Your task to perform on an android device: toggle pop-ups in chrome Image 0: 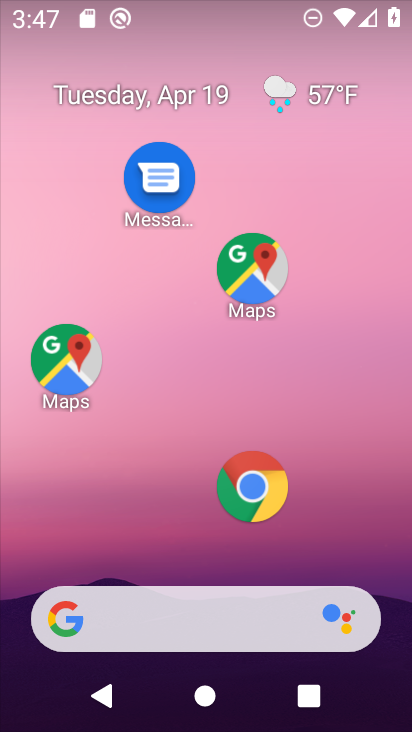
Step 0: click (256, 494)
Your task to perform on an android device: toggle pop-ups in chrome Image 1: 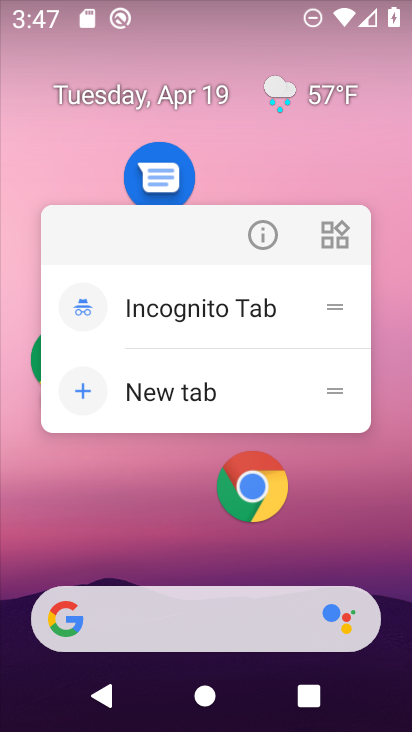
Step 1: click (267, 227)
Your task to perform on an android device: toggle pop-ups in chrome Image 2: 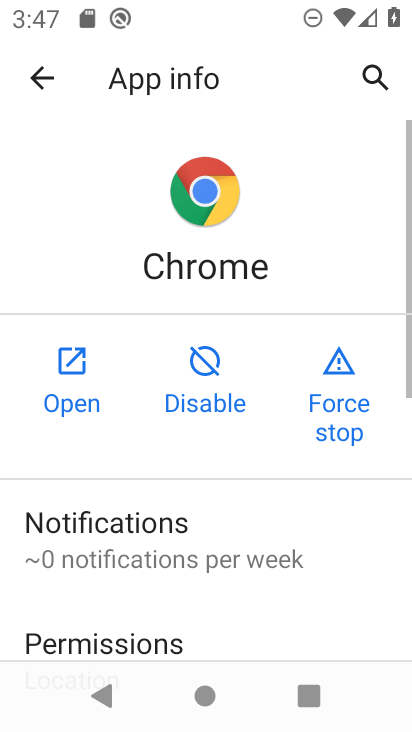
Step 2: click (372, 299)
Your task to perform on an android device: toggle pop-ups in chrome Image 3: 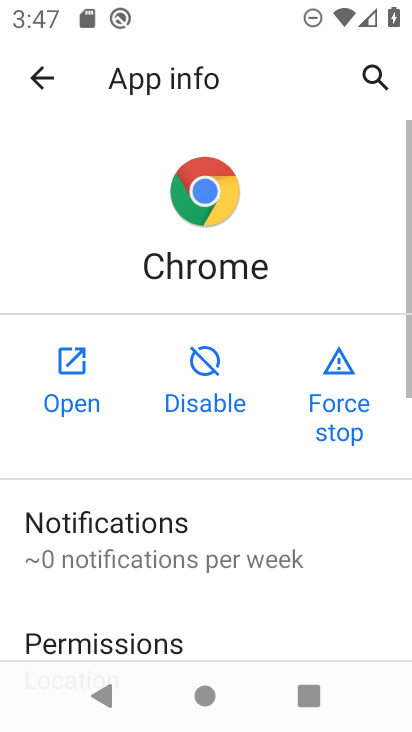
Step 3: drag from (278, 370) to (199, 346)
Your task to perform on an android device: toggle pop-ups in chrome Image 4: 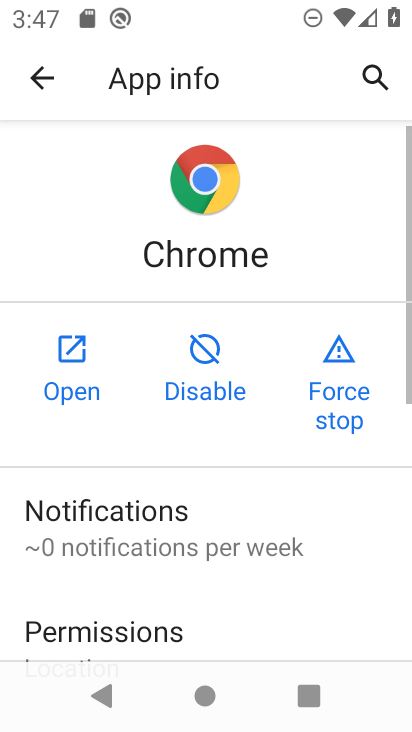
Step 4: click (140, 269)
Your task to perform on an android device: toggle pop-ups in chrome Image 5: 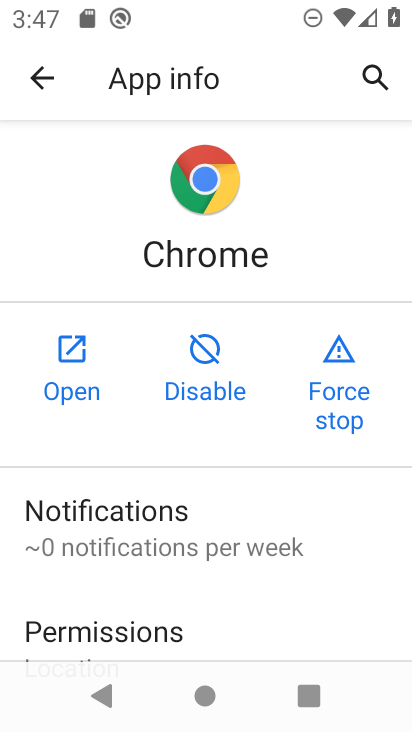
Step 5: click (353, 338)
Your task to perform on an android device: toggle pop-ups in chrome Image 6: 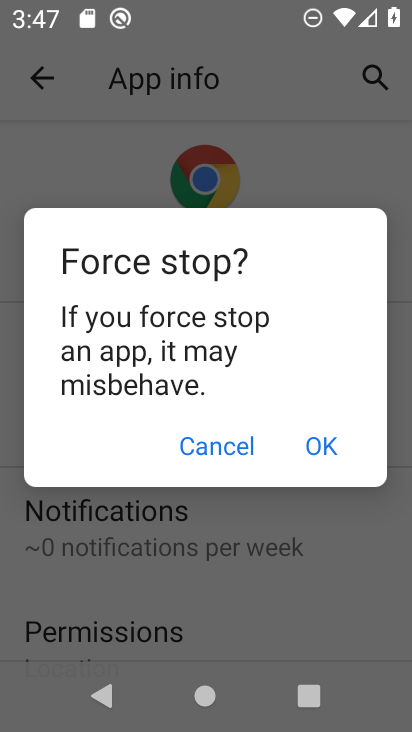
Step 6: click (247, 457)
Your task to perform on an android device: toggle pop-ups in chrome Image 7: 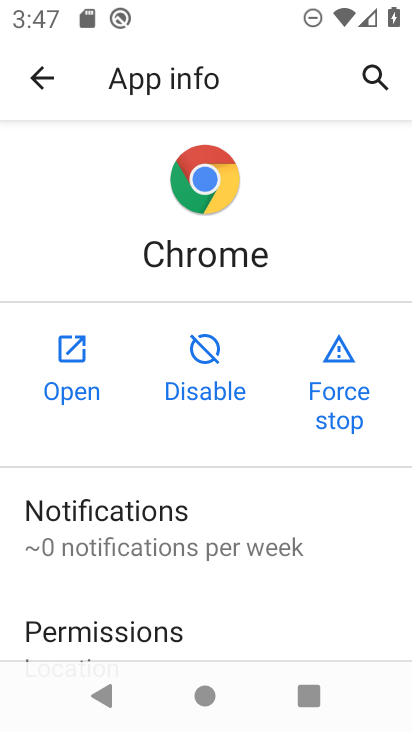
Step 7: click (96, 380)
Your task to perform on an android device: toggle pop-ups in chrome Image 8: 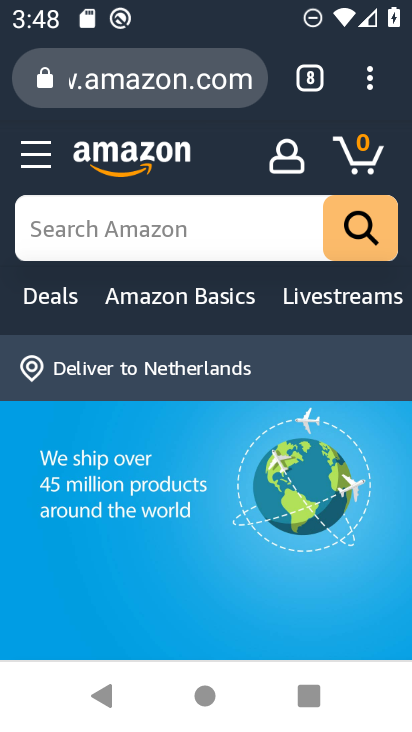
Step 8: click (391, 85)
Your task to perform on an android device: toggle pop-ups in chrome Image 9: 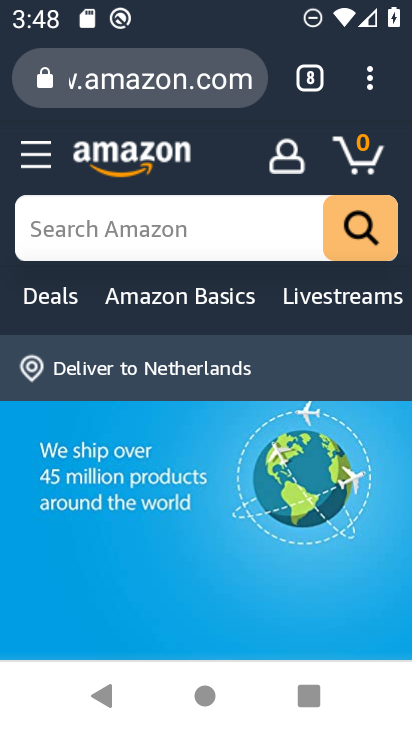
Step 9: click (367, 82)
Your task to perform on an android device: toggle pop-ups in chrome Image 10: 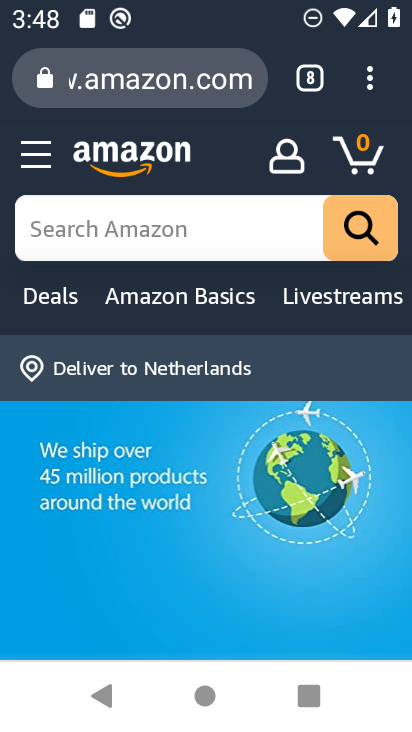
Step 10: click (379, 90)
Your task to perform on an android device: toggle pop-ups in chrome Image 11: 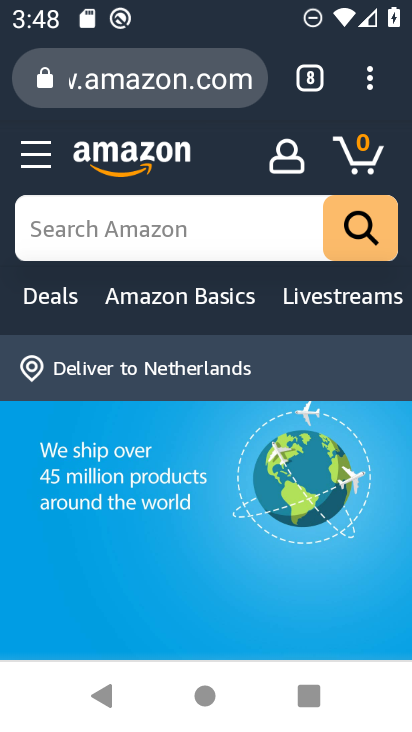
Step 11: click (373, 83)
Your task to perform on an android device: toggle pop-ups in chrome Image 12: 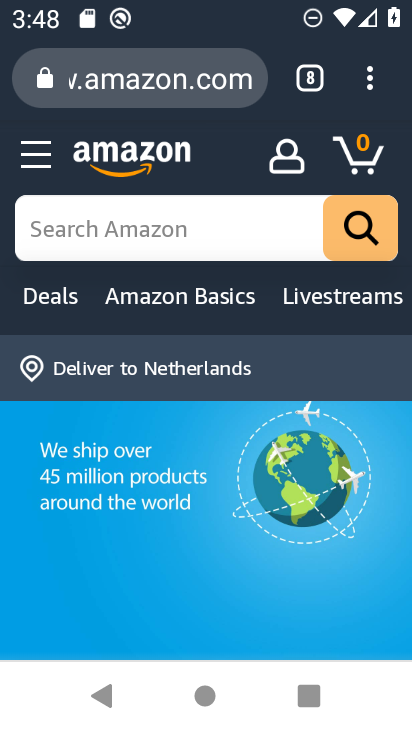
Step 12: click (378, 80)
Your task to perform on an android device: toggle pop-ups in chrome Image 13: 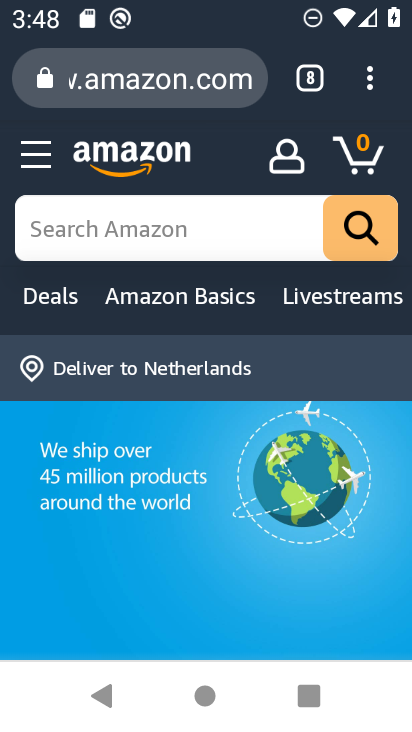
Step 13: click (368, 85)
Your task to perform on an android device: toggle pop-ups in chrome Image 14: 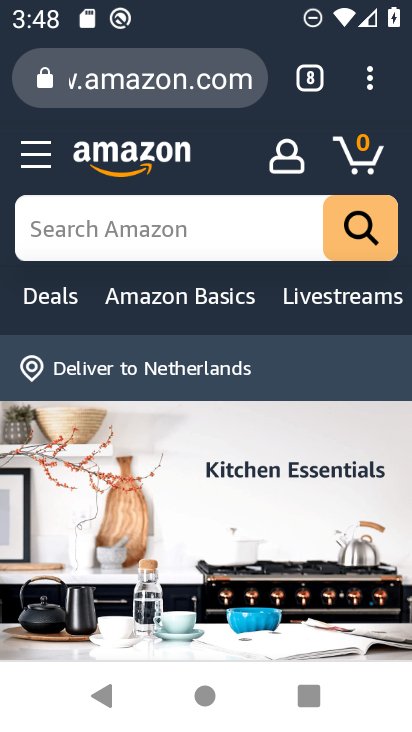
Step 14: click (376, 82)
Your task to perform on an android device: toggle pop-ups in chrome Image 15: 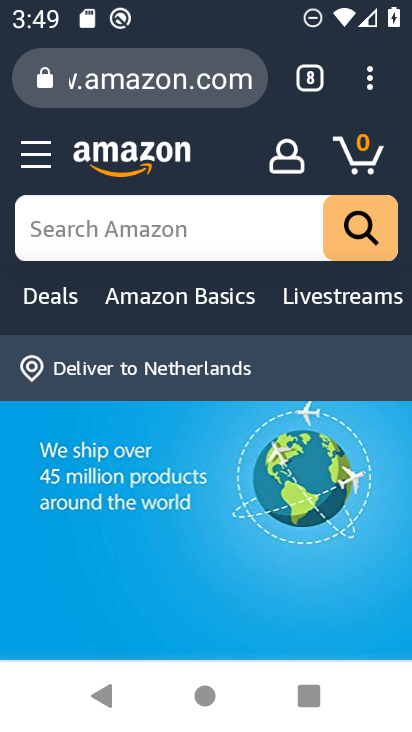
Step 15: click (373, 92)
Your task to perform on an android device: toggle pop-ups in chrome Image 16: 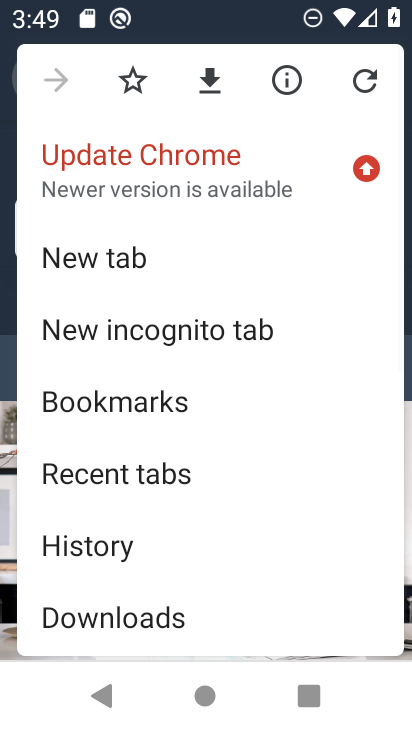
Step 16: drag from (259, 468) to (321, 180)
Your task to perform on an android device: toggle pop-ups in chrome Image 17: 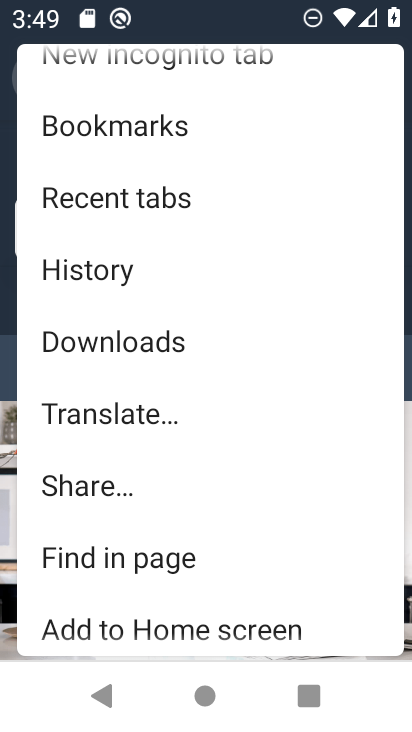
Step 17: drag from (214, 512) to (270, 277)
Your task to perform on an android device: toggle pop-ups in chrome Image 18: 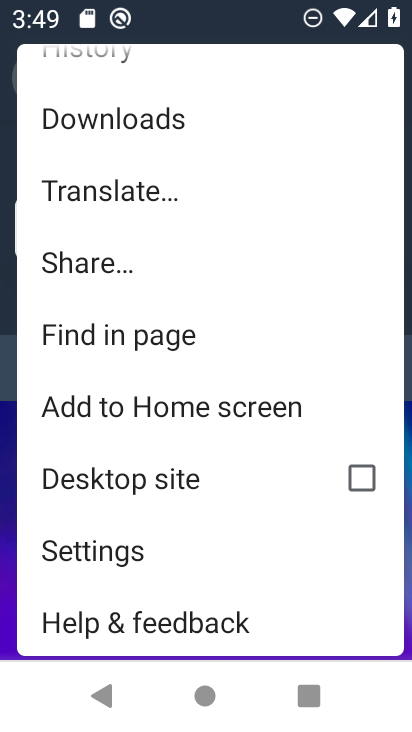
Step 18: click (179, 554)
Your task to perform on an android device: toggle pop-ups in chrome Image 19: 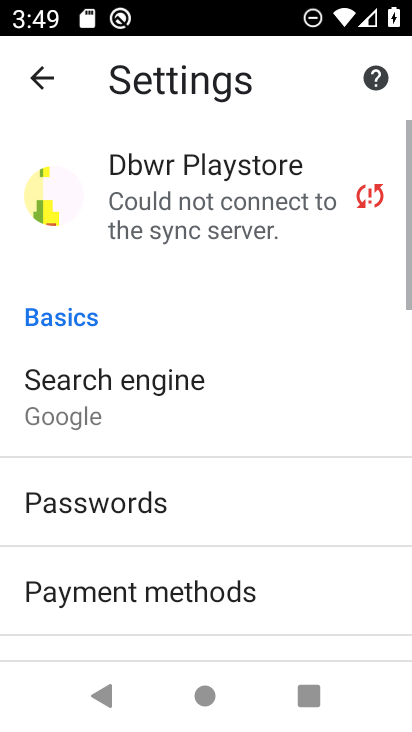
Step 19: drag from (271, 458) to (324, 244)
Your task to perform on an android device: toggle pop-ups in chrome Image 20: 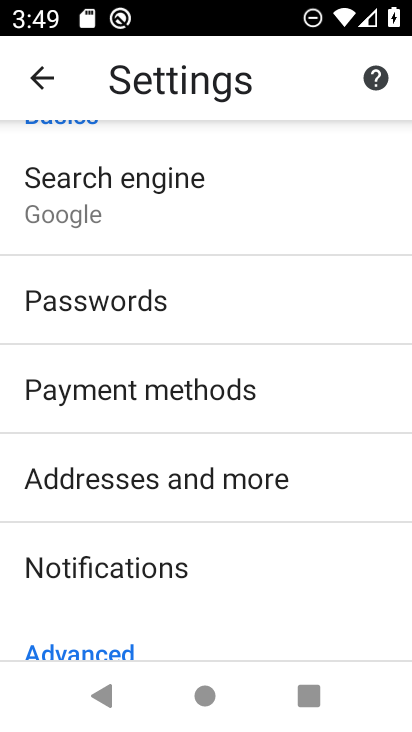
Step 20: drag from (217, 553) to (293, 277)
Your task to perform on an android device: toggle pop-ups in chrome Image 21: 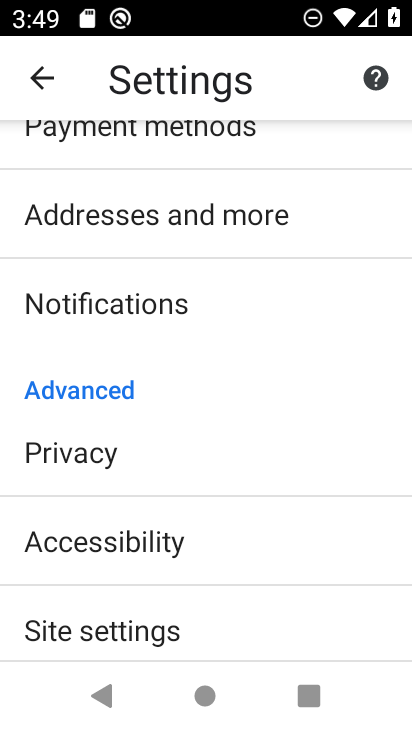
Step 21: click (168, 625)
Your task to perform on an android device: toggle pop-ups in chrome Image 22: 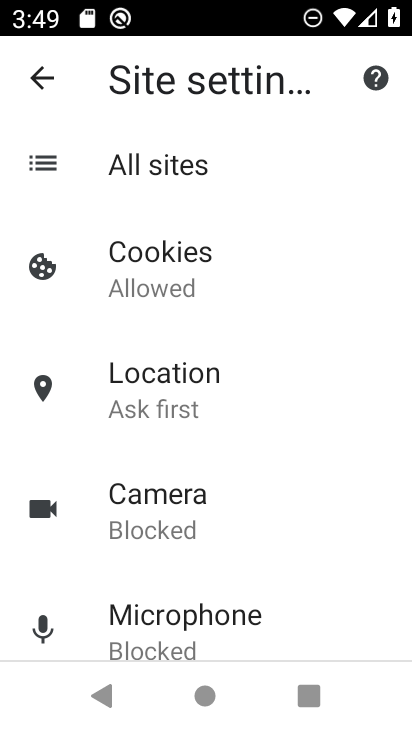
Step 22: drag from (283, 443) to (279, 132)
Your task to perform on an android device: toggle pop-ups in chrome Image 23: 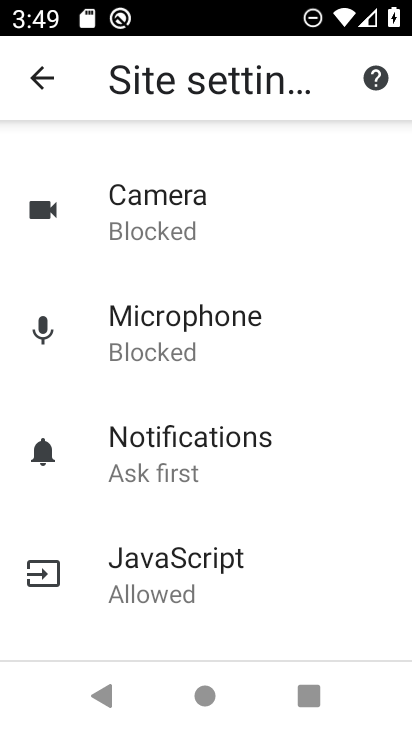
Step 23: drag from (247, 563) to (256, 247)
Your task to perform on an android device: toggle pop-ups in chrome Image 24: 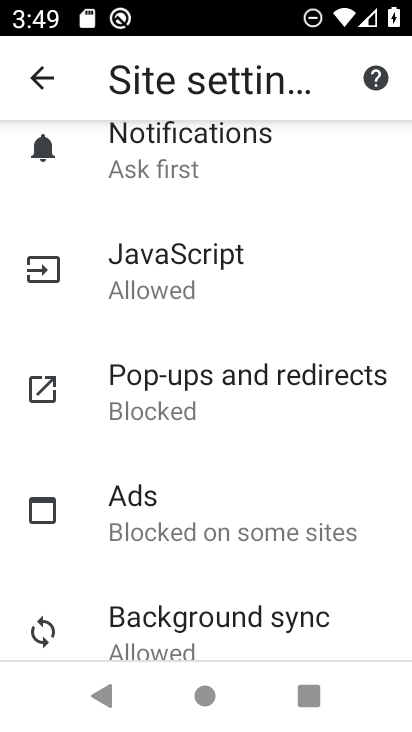
Step 24: click (235, 397)
Your task to perform on an android device: toggle pop-ups in chrome Image 25: 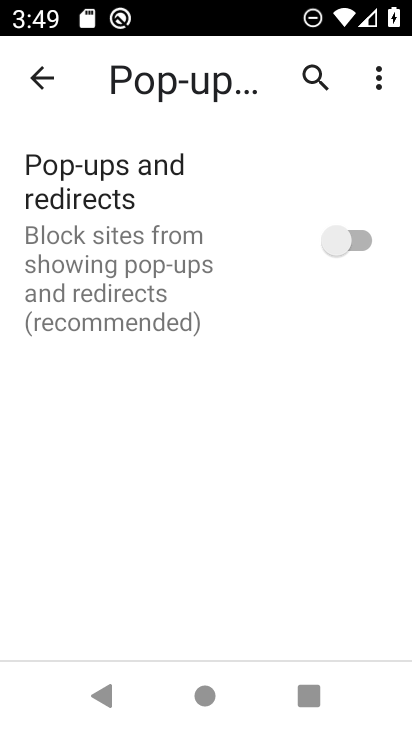
Step 25: click (345, 235)
Your task to perform on an android device: toggle pop-ups in chrome Image 26: 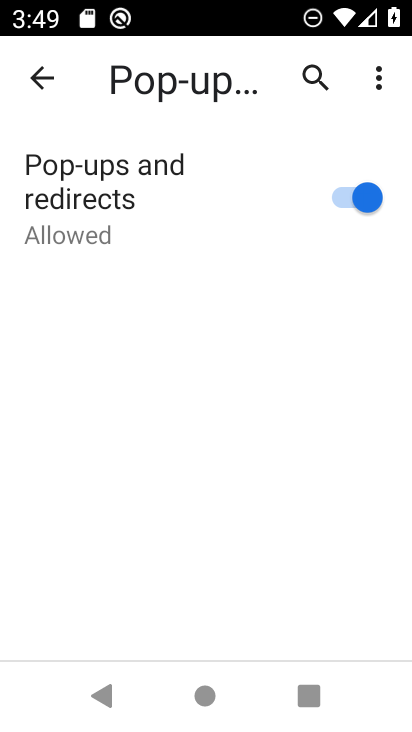
Step 26: task complete